Your task to perform on an android device: turn notification dots off Image 0: 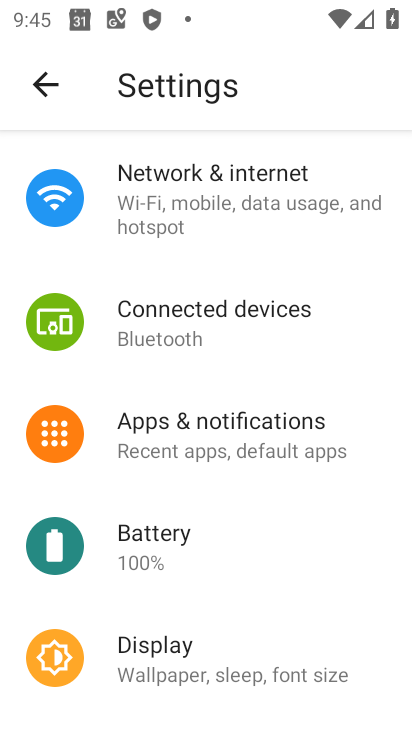
Step 0: click (247, 447)
Your task to perform on an android device: turn notification dots off Image 1: 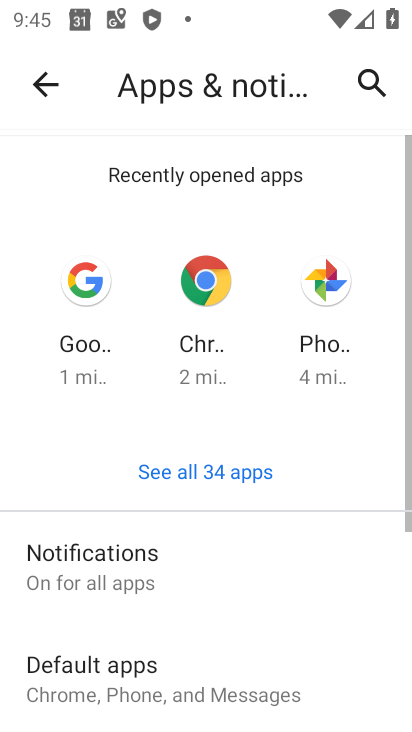
Step 1: click (217, 566)
Your task to perform on an android device: turn notification dots off Image 2: 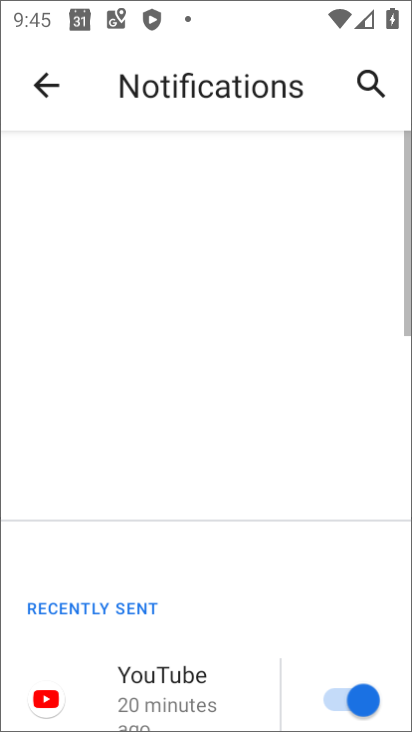
Step 2: drag from (217, 566) to (275, 136)
Your task to perform on an android device: turn notification dots off Image 3: 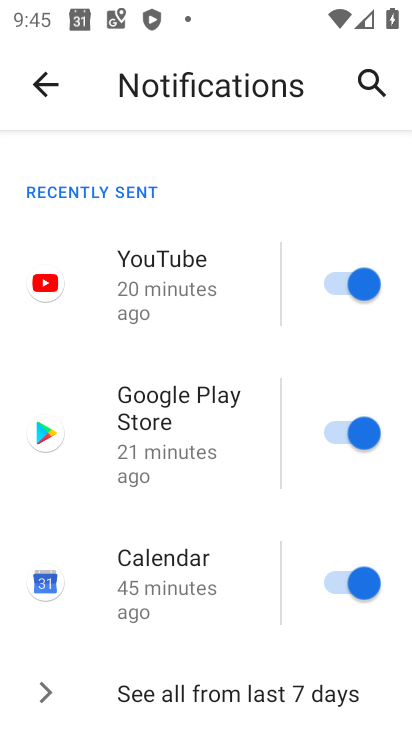
Step 3: drag from (253, 685) to (253, 406)
Your task to perform on an android device: turn notification dots off Image 4: 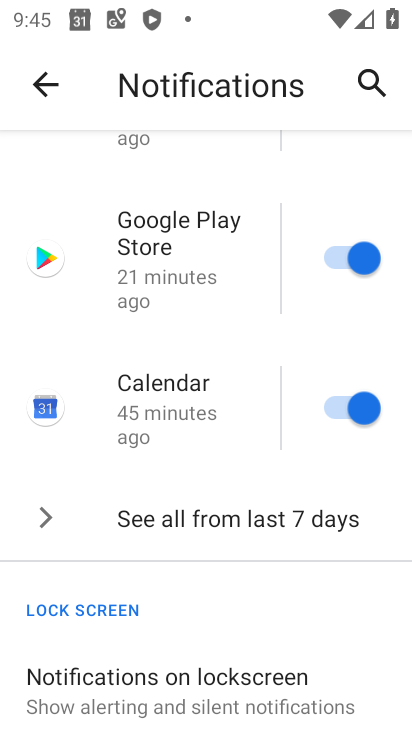
Step 4: drag from (189, 654) to (209, 438)
Your task to perform on an android device: turn notification dots off Image 5: 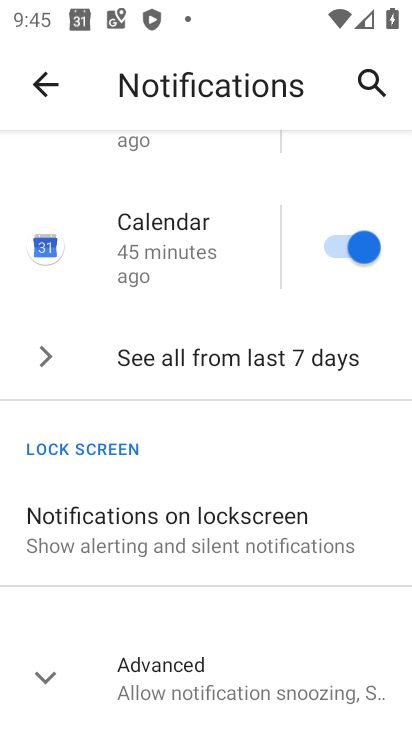
Step 5: click (192, 654)
Your task to perform on an android device: turn notification dots off Image 6: 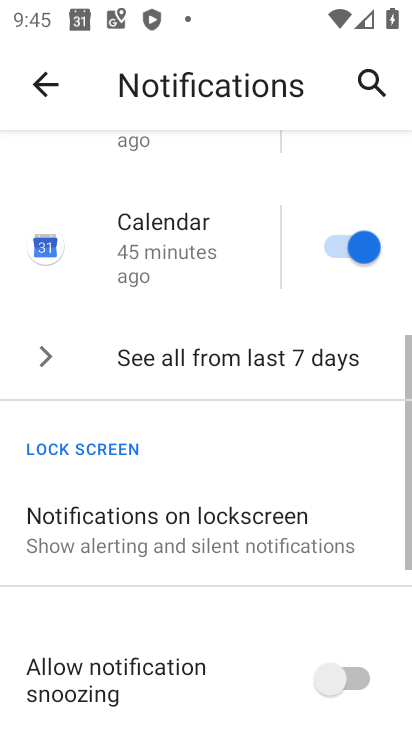
Step 6: drag from (192, 654) to (203, 326)
Your task to perform on an android device: turn notification dots off Image 7: 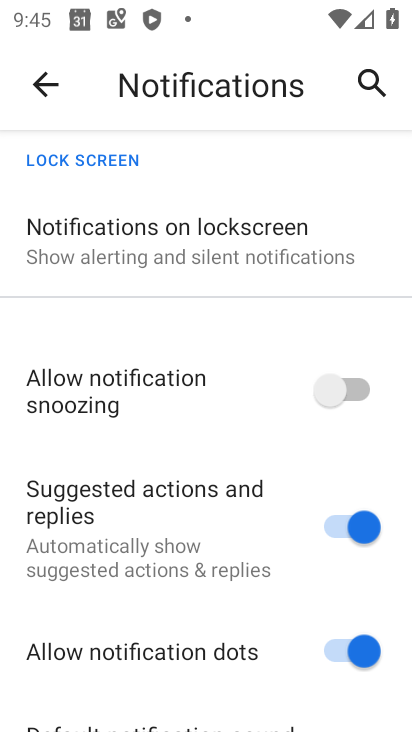
Step 7: click (324, 638)
Your task to perform on an android device: turn notification dots off Image 8: 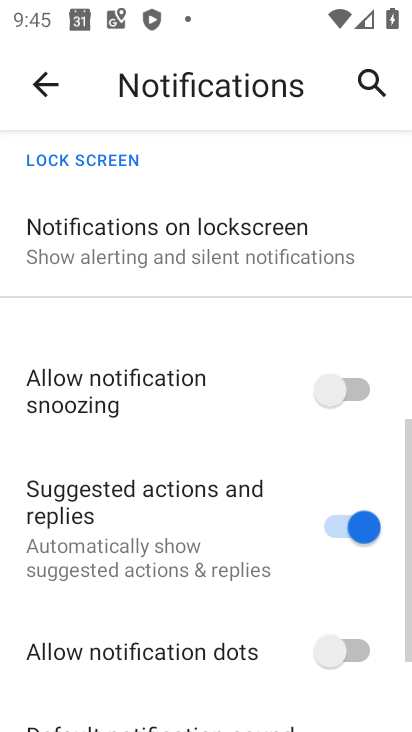
Step 8: task complete